Your task to perform on an android device: Empty the shopping cart on walmart.com. Add "corsair k70" to the cart on walmart.com Image 0: 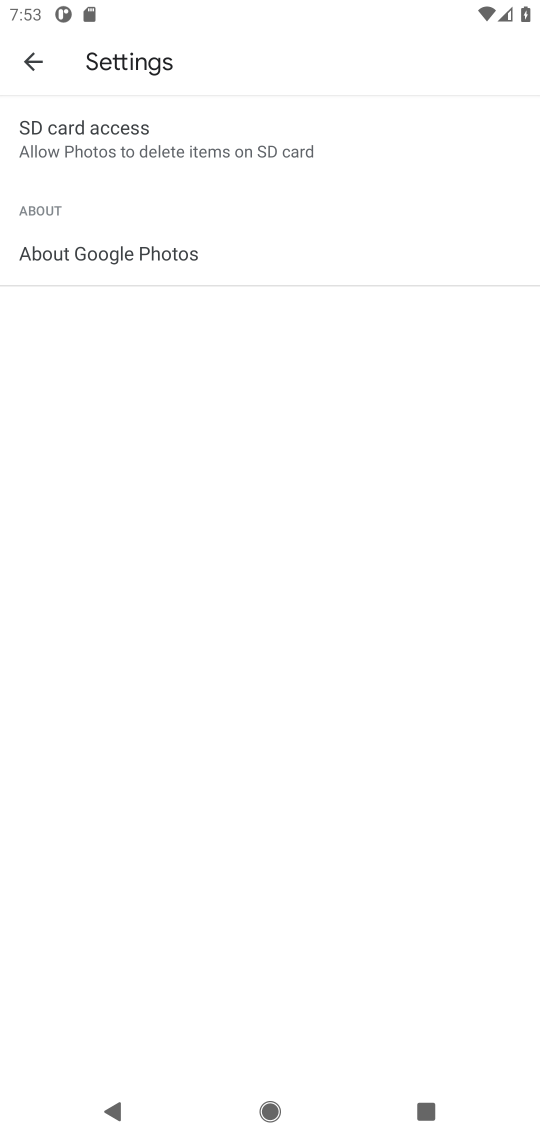
Step 0: press home button
Your task to perform on an android device: Empty the shopping cart on walmart.com. Add "corsair k70" to the cart on walmart.com Image 1: 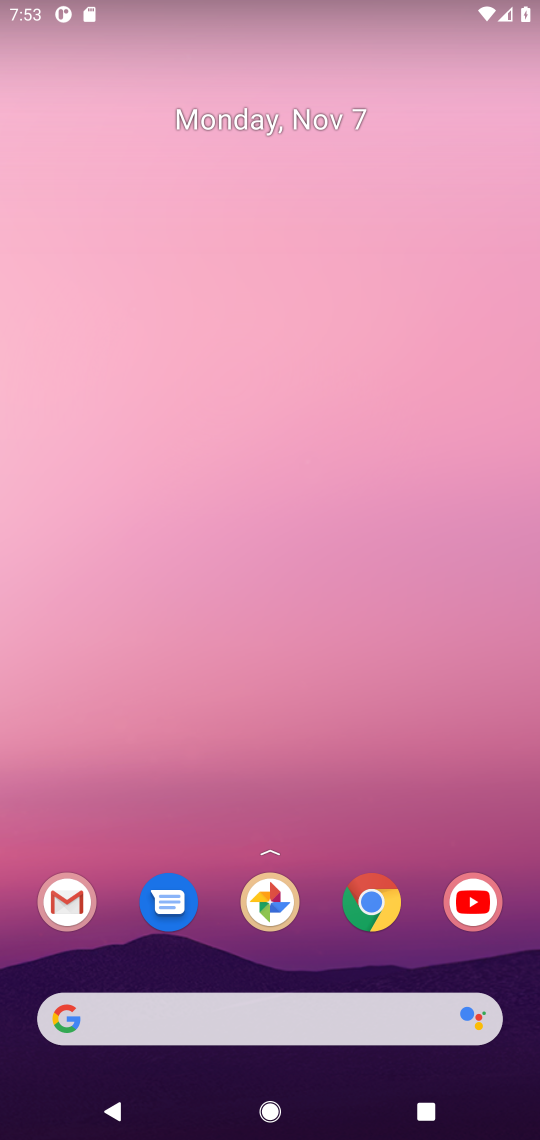
Step 1: click (377, 917)
Your task to perform on an android device: Empty the shopping cart on walmart.com. Add "corsair k70" to the cart on walmart.com Image 2: 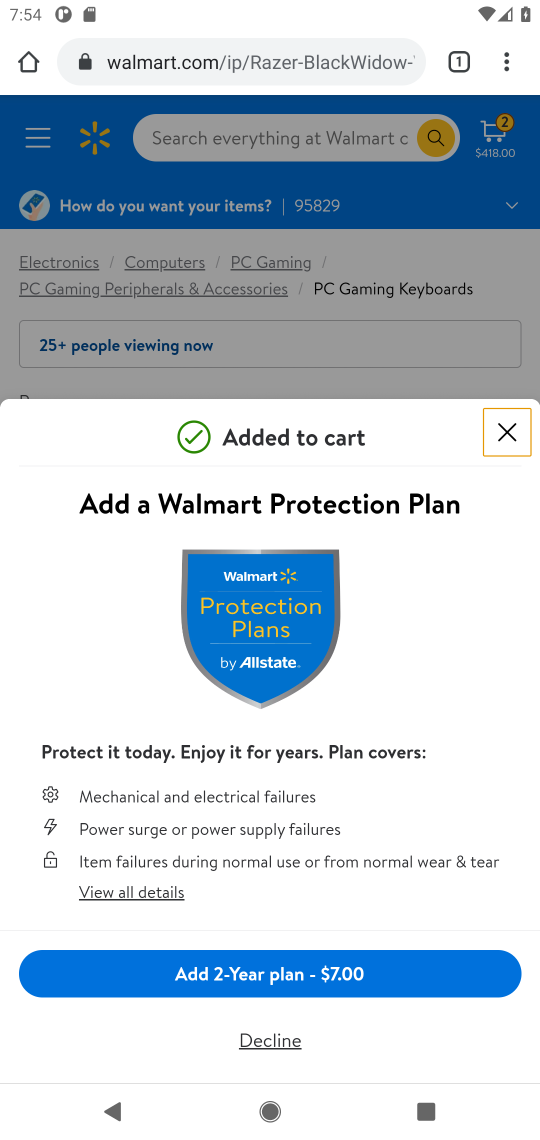
Step 2: click (514, 427)
Your task to perform on an android device: Empty the shopping cart on walmart.com. Add "corsair k70" to the cart on walmart.com Image 3: 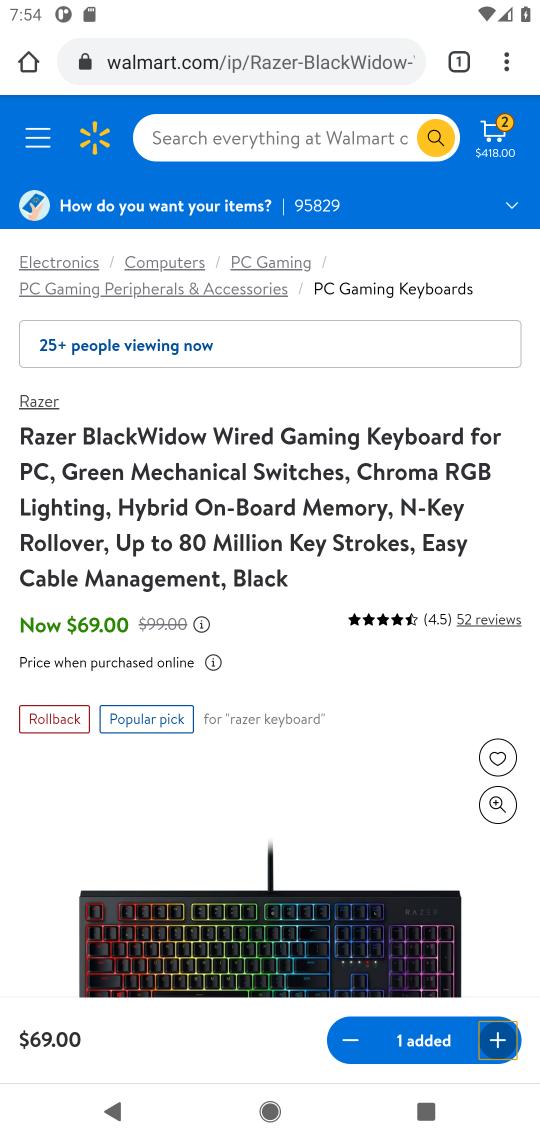
Step 3: click (503, 124)
Your task to perform on an android device: Empty the shopping cart on walmart.com. Add "corsair k70" to the cart on walmart.com Image 4: 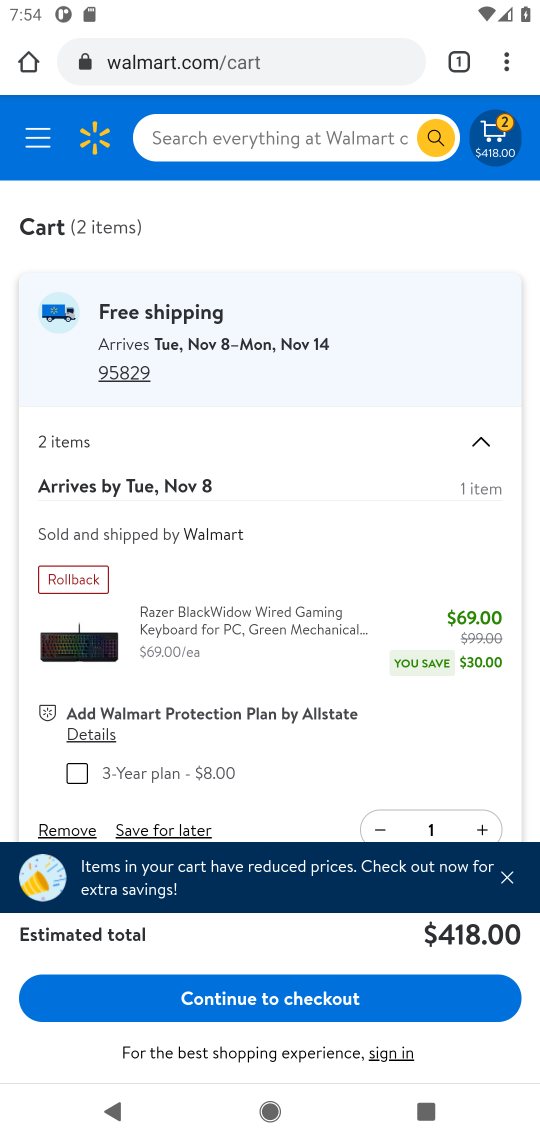
Step 4: drag from (231, 620) to (236, 389)
Your task to perform on an android device: Empty the shopping cart on walmart.com. Add "corsair k70" to the cart on walmart.com Image 5: 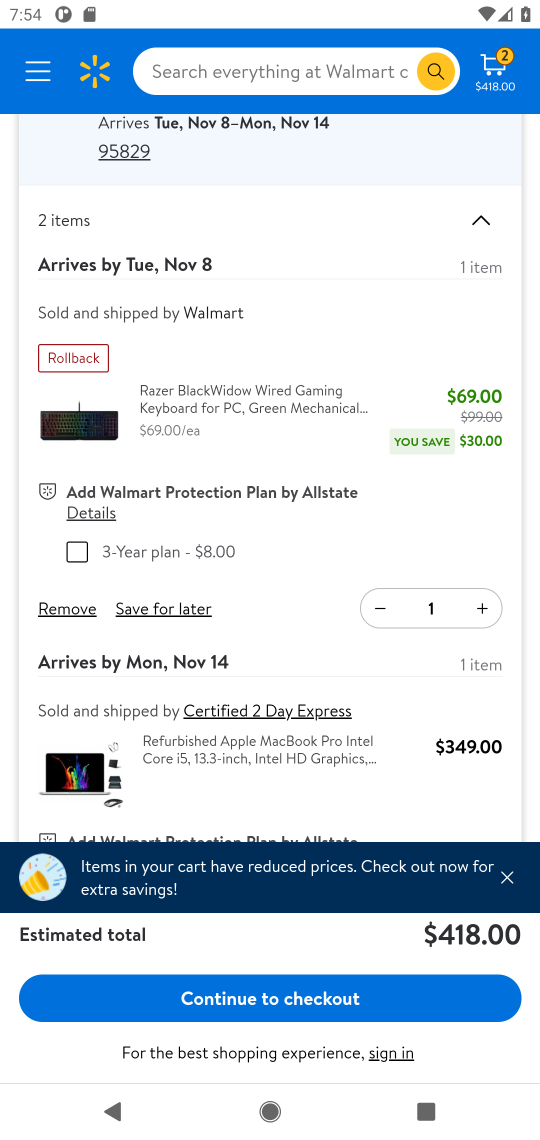
Step 5: click (70, 620)
Your task to perform on an android device: Empty the shopping cart on walmart.com. Add "corsair k70" to the cart on walmart.com Image 6: 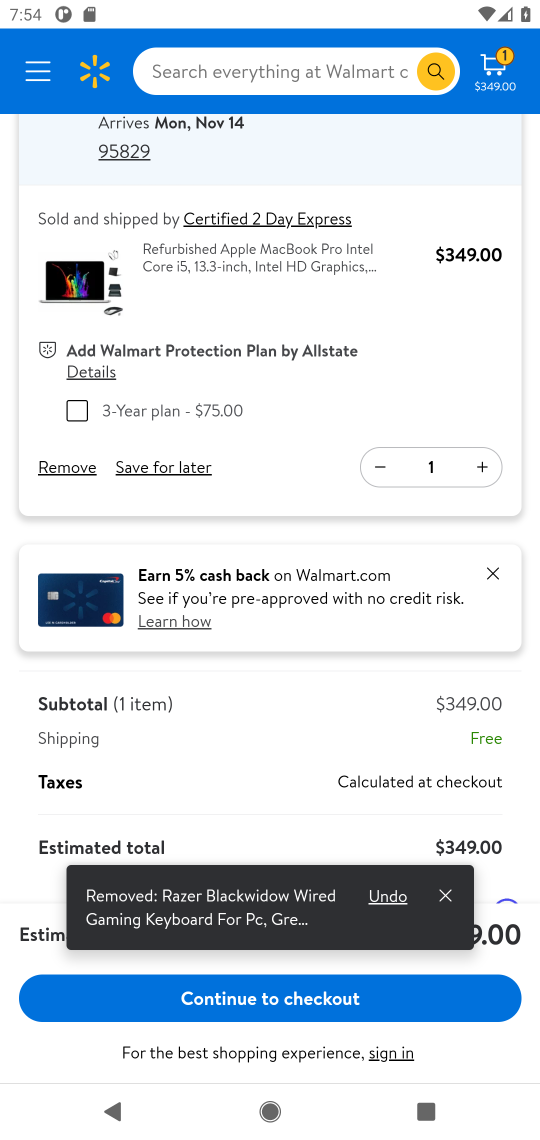
Step 6: click (55, 476)
Your task to perform on an android device: Empty the shopping cart on walmart.com. Add "corsair k70" to the cart on walmart.com Image 7: 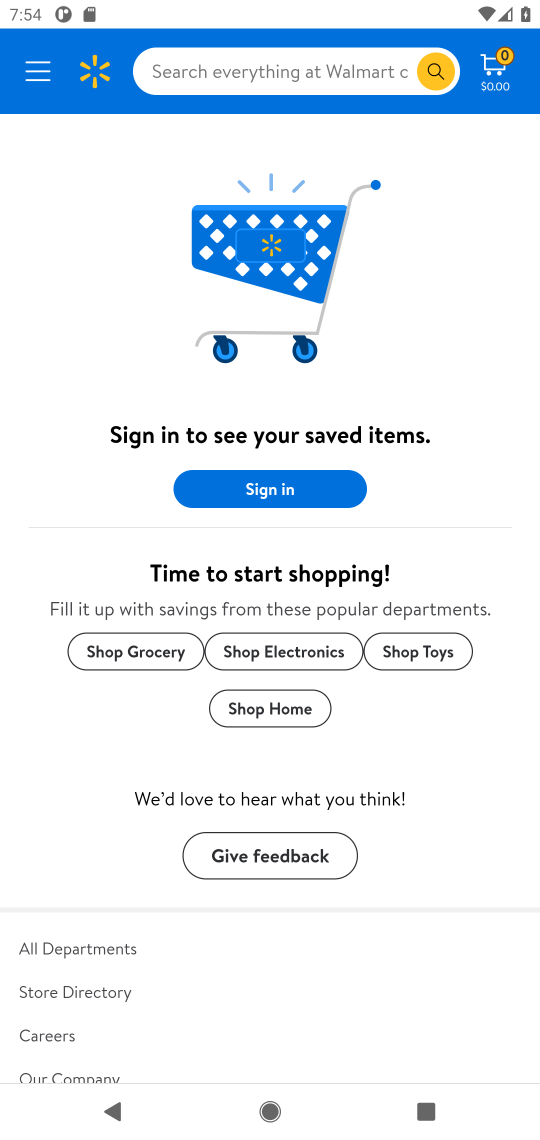
Step 7: click (203, 81)
Your task to perform on an android device: Empty the shopping cart on walmart.com. Add "corsair k70" to the cart on walmart.com Image 8: 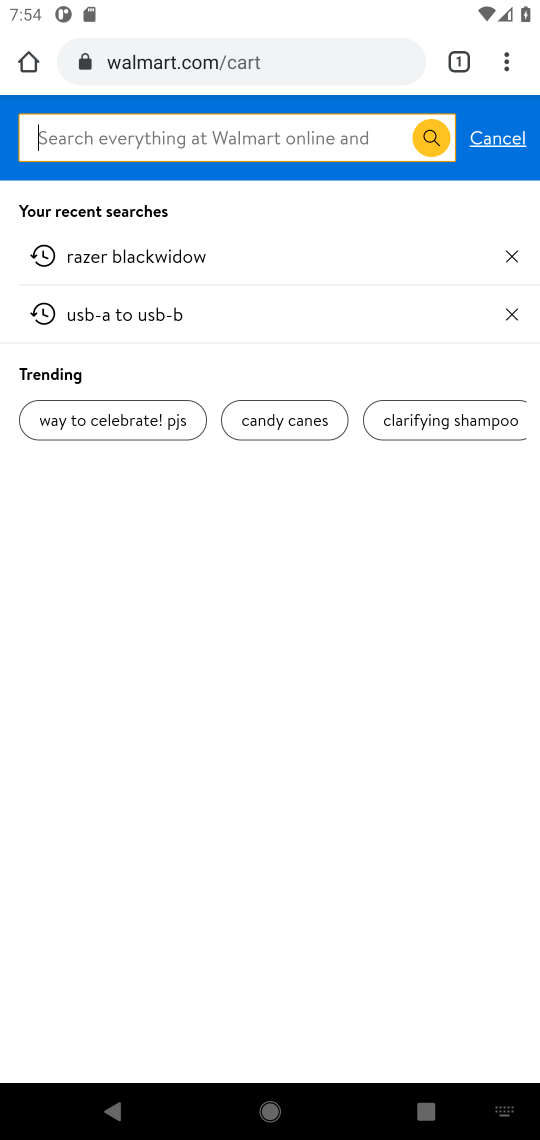
Step 8: type "corsair k70"
Your task to perform on an android device: Empty the shopping cart on walmart.com. Add "corsair k70" to the cart on walmart.com Image 9: 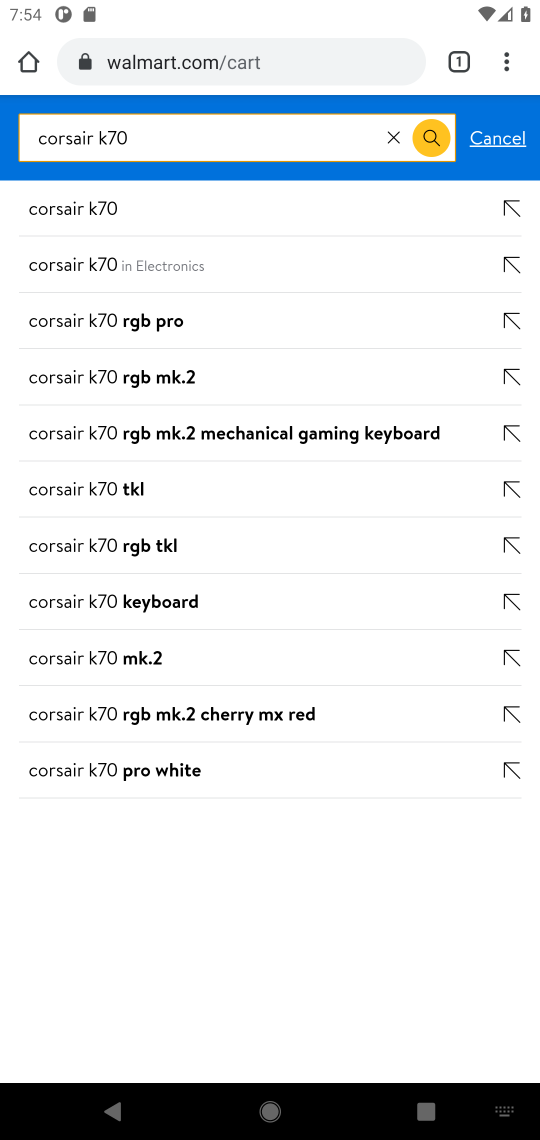
Step 9: click (96, 210)
Your task to perform on an android device: Empty the shopping cart on walmart.com. Add "corsair k70" to the cart on walmart.com Image 10: 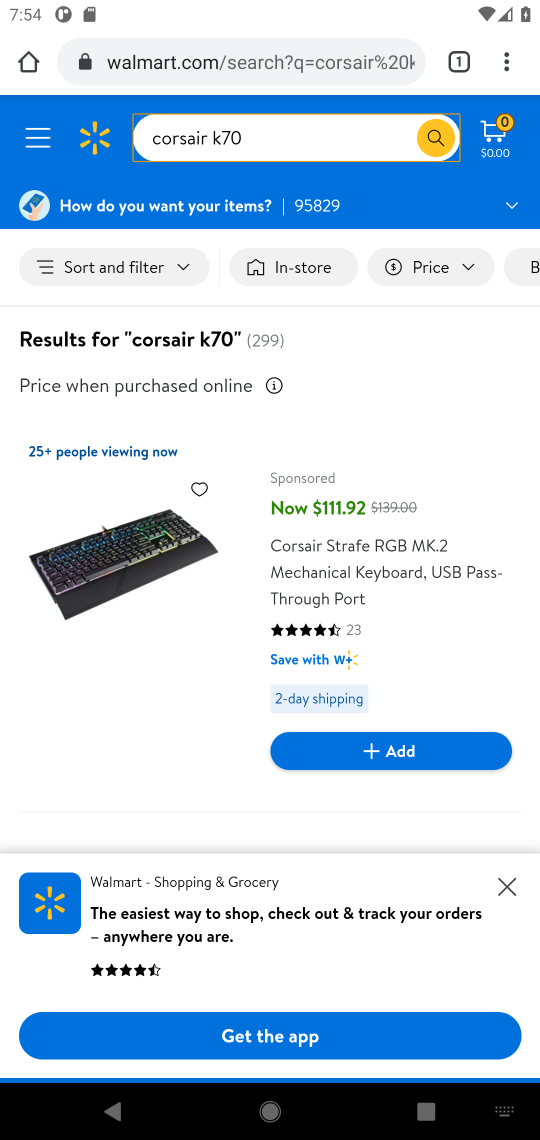
Step 10: drag from (186, 651) to (135, 354)
Your task to perform on an android device: Empty the shopping cart on walmart.com. Add "corsair k70" to the cart on walmart.com Image 11: 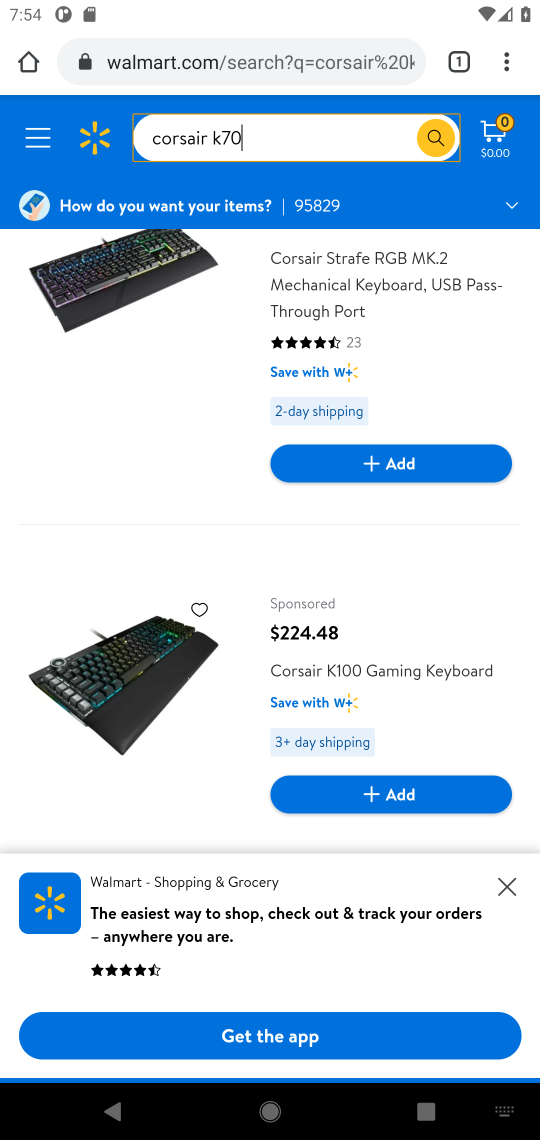
Step 11: drag from (167, 658) to (139, 282)
Your task to perform on an android device: Empty the shopping cart on walmart.com. Add "corsair k70" to the cart on walmart.com Image 12: 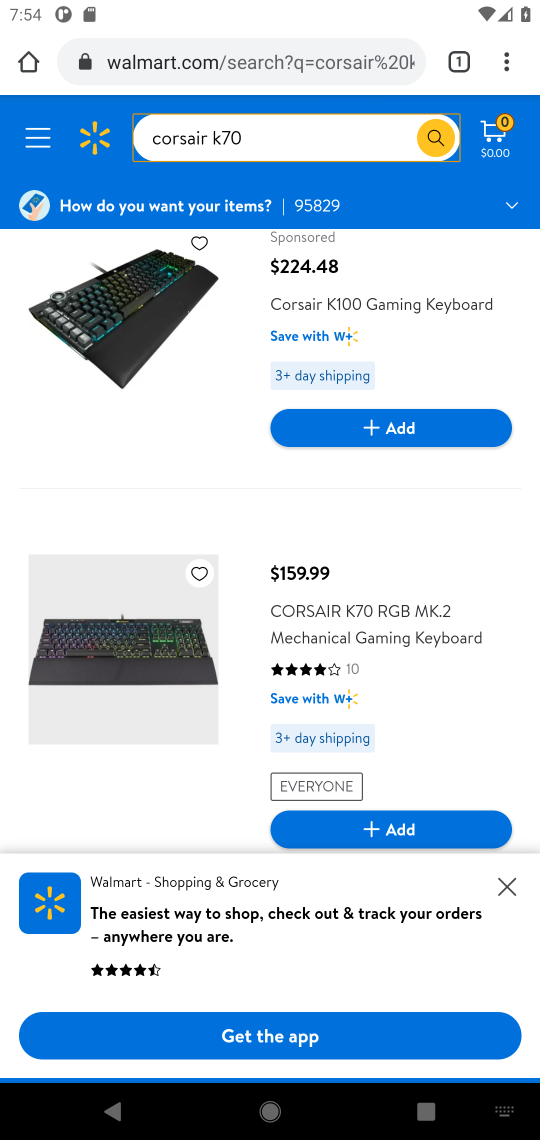
Step 12: click (370, 829)
Your task to perform on an android device: Empty the shopping cart on walmart.com. Add "corsair k70" to the cart on walmart.com Image 13: 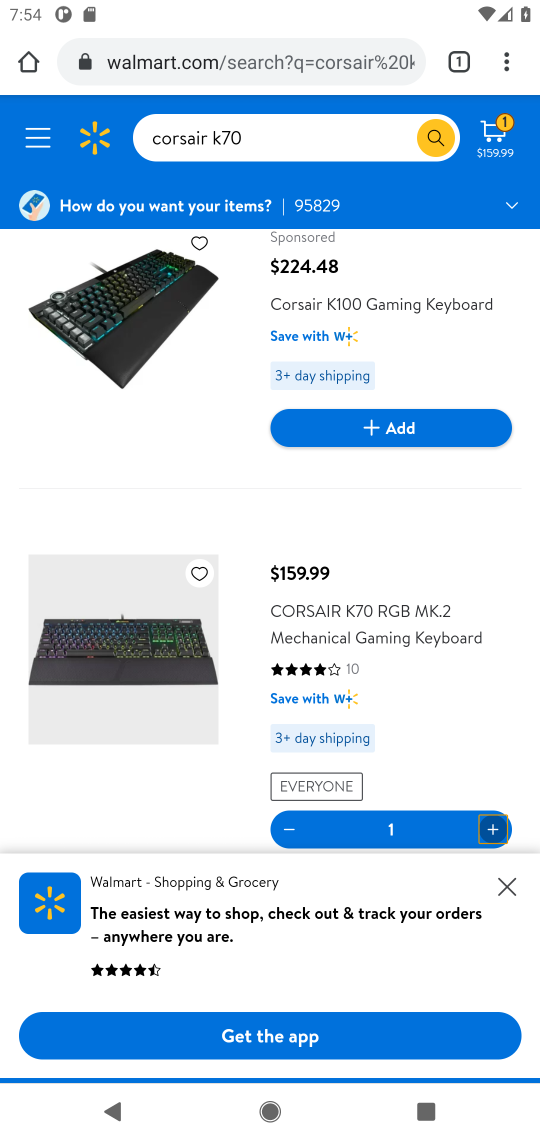
Step 13: task complete